Your task to perform on an android device: What's the weather going to be this weekend? Image 0: 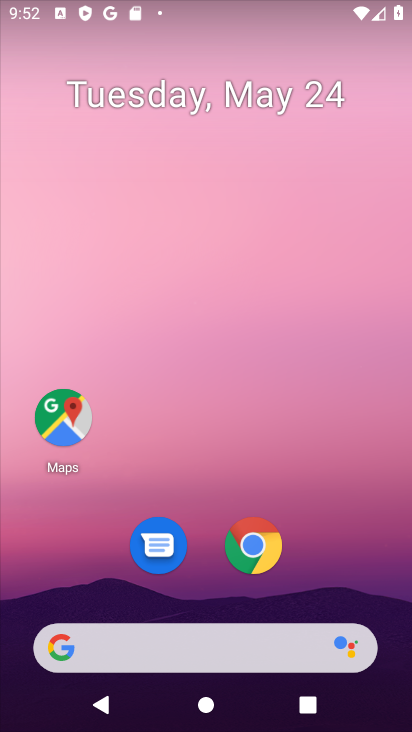
Step 0: click (269, 655)
Your task to perform on an android device: What's the weather going to be this weekend? Image 1: 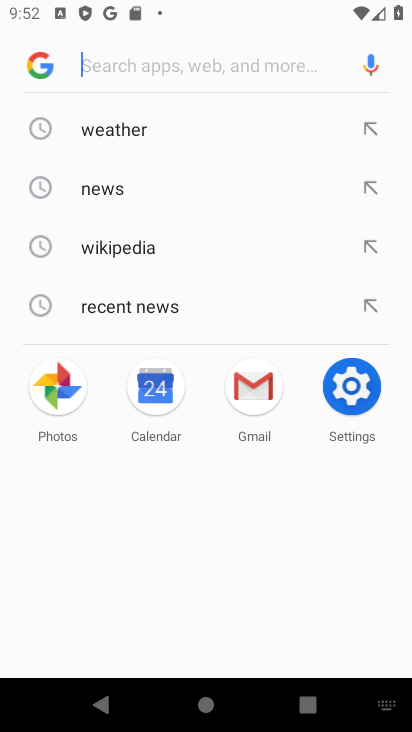
Step 1: click (123, 122)
Your task to perform on an android device: What's the weather going to be this weekend? Image 2: 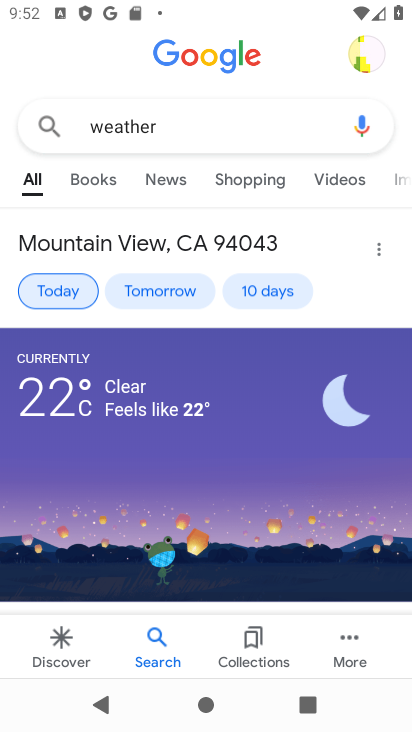
Step 2: click (79, 289)
Your task to perform on an android device: What's the weather going to be this weekend? Image 3: 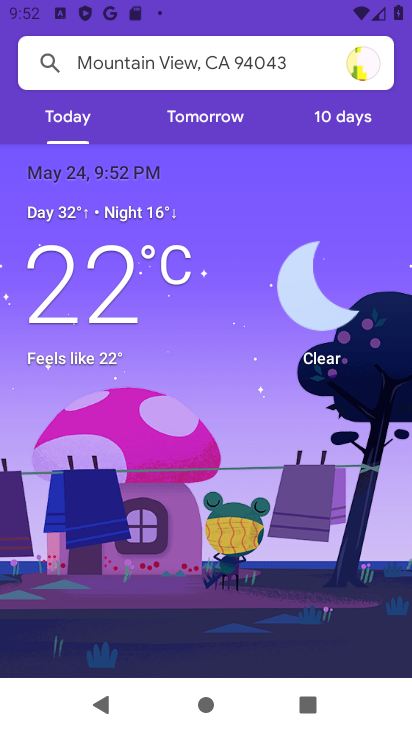
Step 3: click (339, 112)
Your task to perform on an android device: What's the weather going to be this weekend? Image 4: 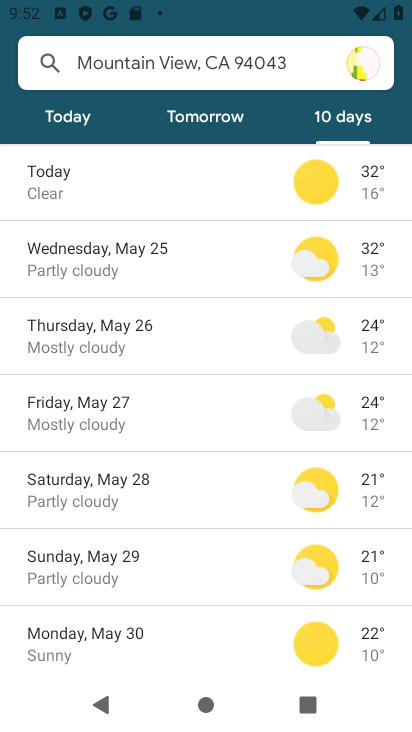
Step 4: click (157, 472)
Your task to perform on an android device: What's the weather going to be this weekend? Image 5: 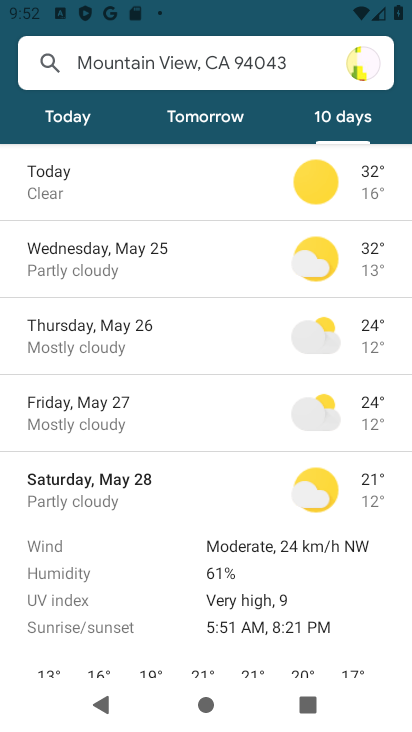
Step 5: task complete